Your task to perform on an android device: Open wifi settings Image 0: 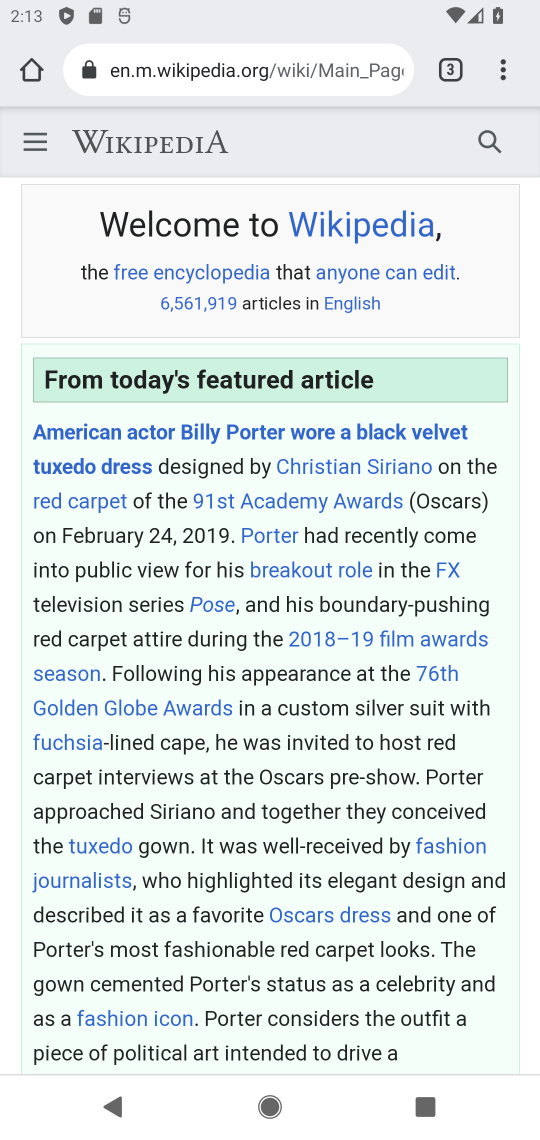
Step 0: press home button
Your task to perform on an android device: Open wifi settings Image 1: 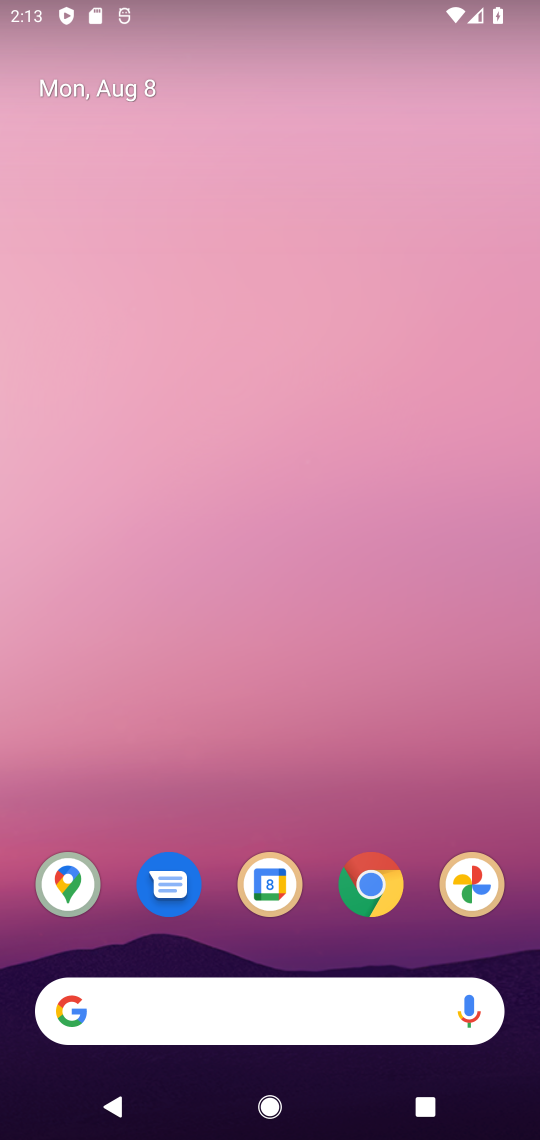
Step 1: drag from (305, 706) to (306, 10)
Your task to perform on an android device: Open wifi settings Image 2: 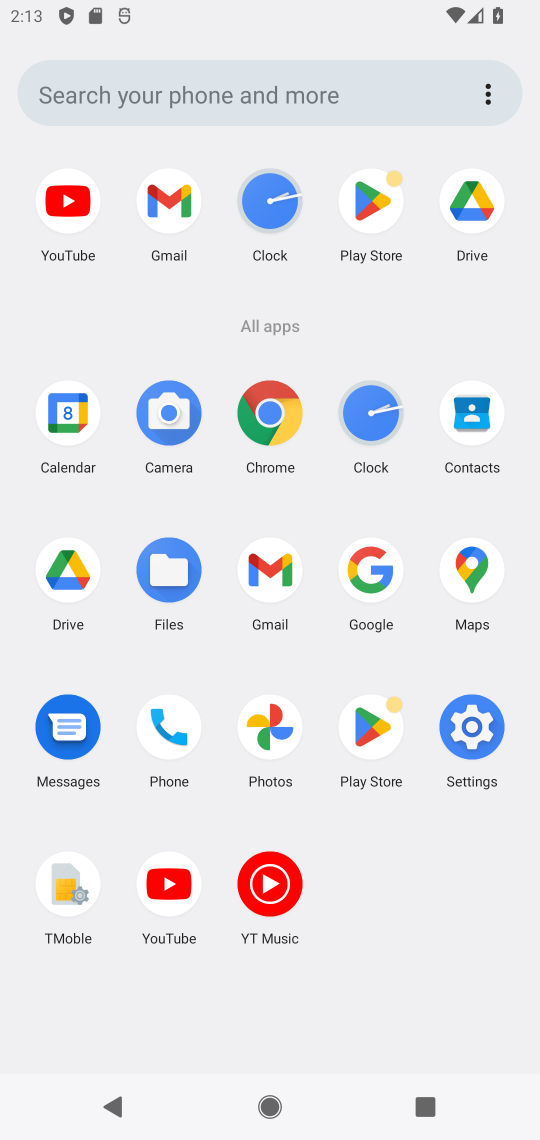
Step 2: click (472, 742)
Your task to perform on an android device: Open wifi settings Image 3: 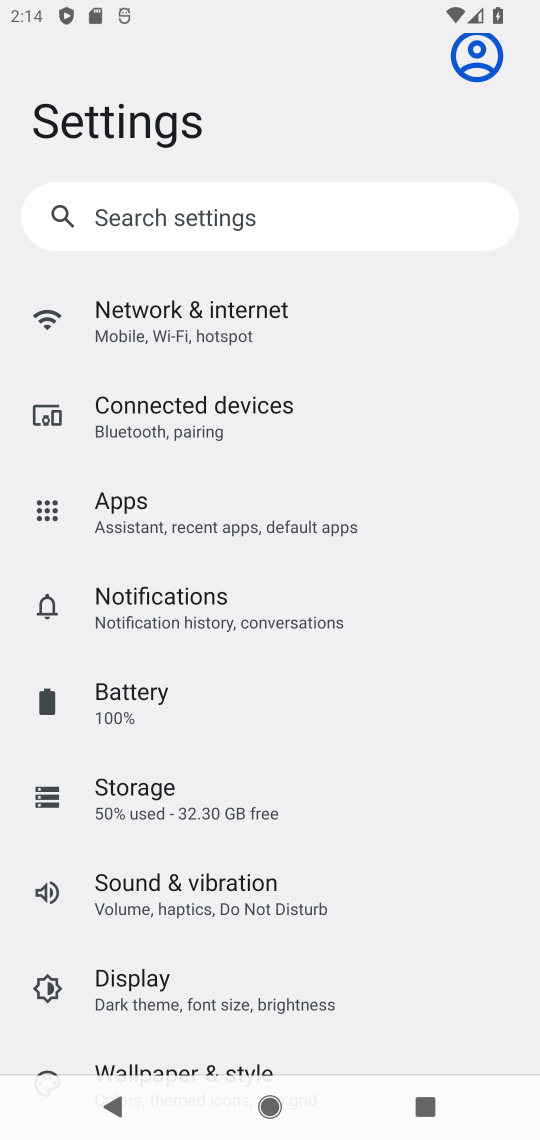
Step 3: click (199, 312)
Your task to perform on an android device: Open wifi settings Image 4: 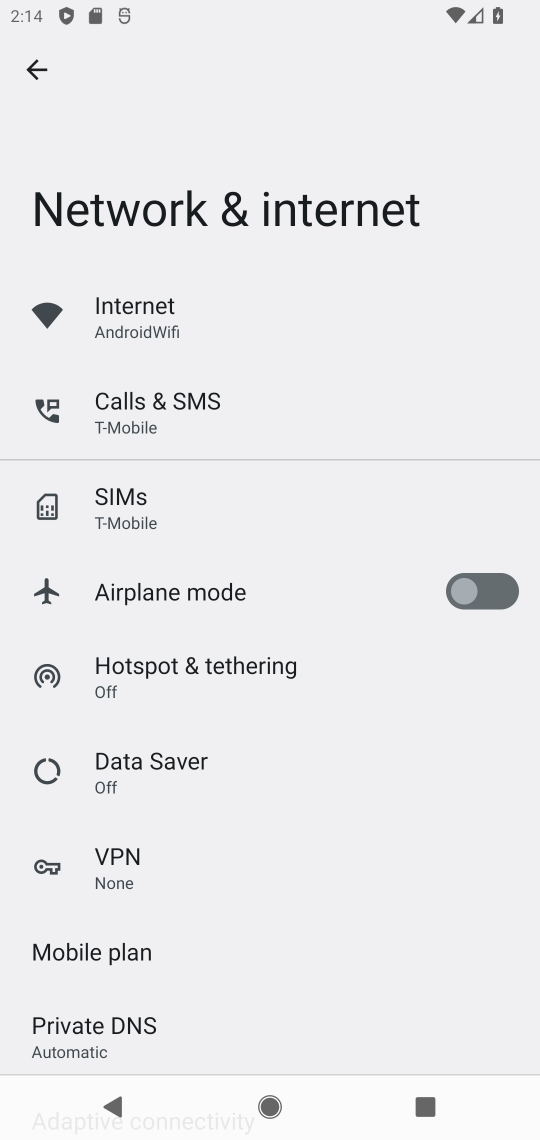
Step 4: click (144, 317)
Your task to perform on an android device: Open wifi settings Image 5: 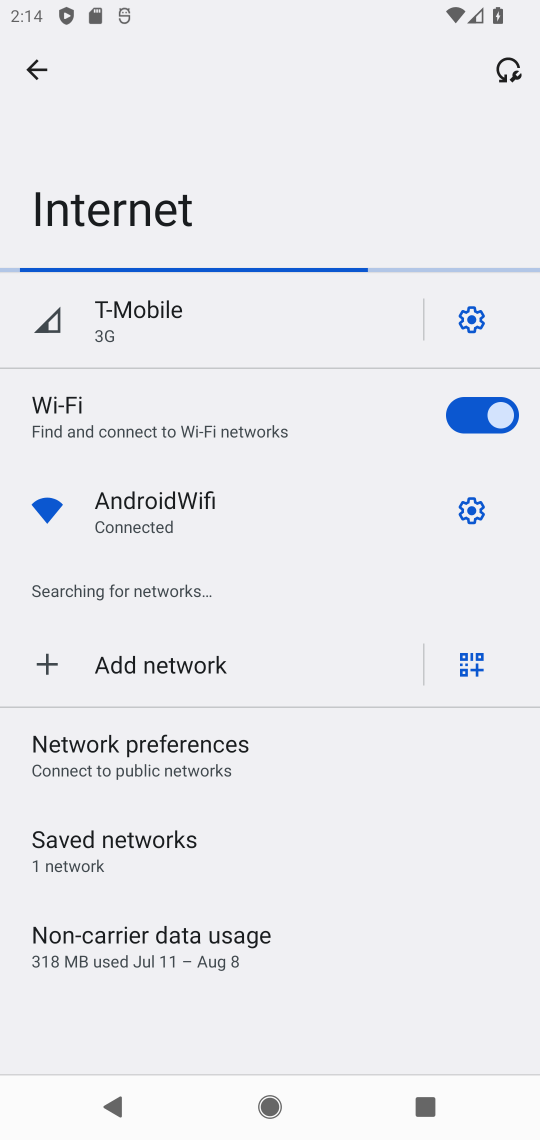
Step 5: task complete